Your task to perform on an android device: set the stopwatch Image 0: 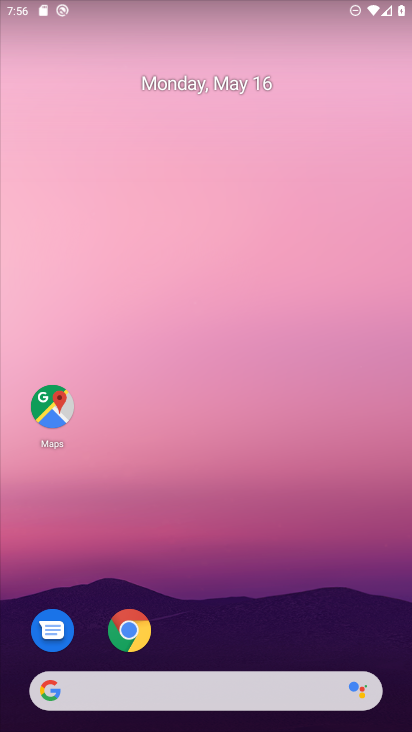
Step 0: drag from (291, 512) to (337, 34)
Your task to perform on an android device: set the stopwatch Image 1: 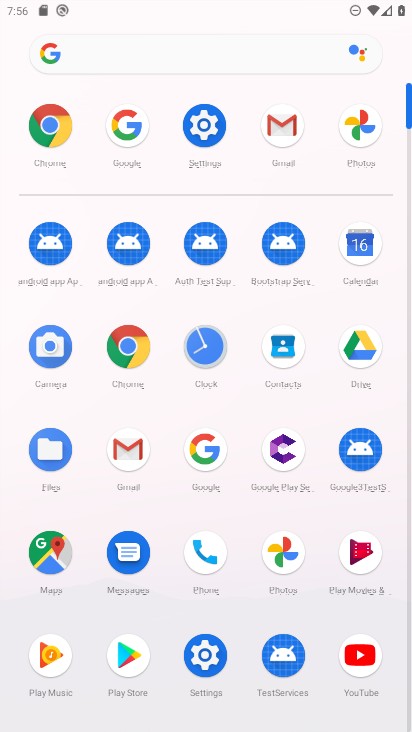
Step 1: click (218, 346)
Your task to perform on an android device: set the stopwatch Image 2: 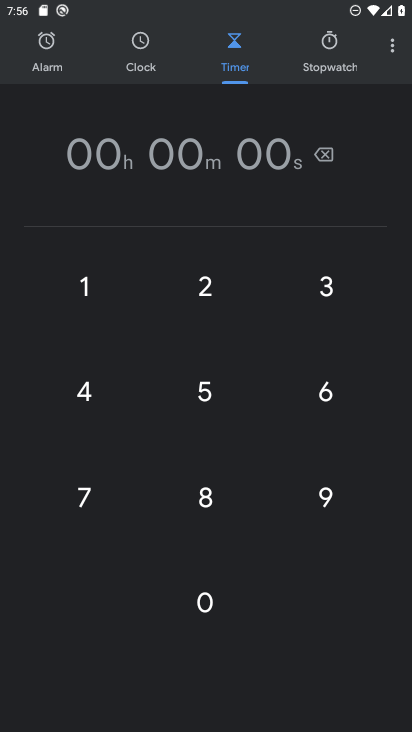
Step 2: drag from (88, 283) to (103, 325)
Your task to perform on an android device: set the stopwatch Image 3: 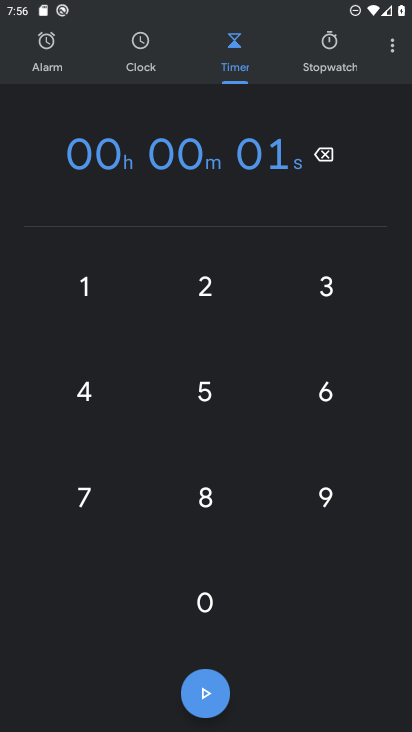
Step 3: click (206, 389)
Your task to perform on an android device: set the stopwatch Image 4: 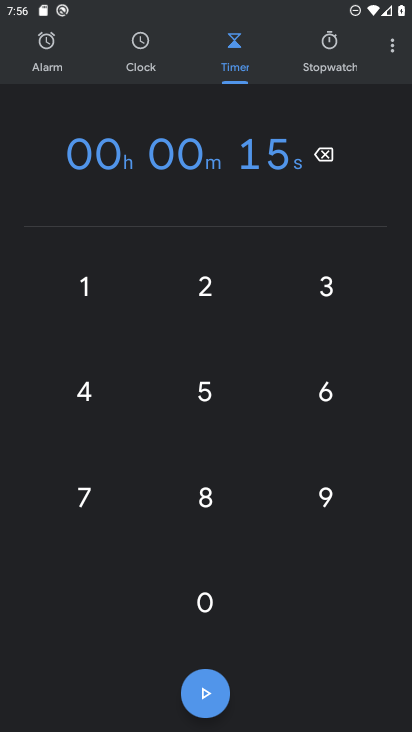
Step 4: click (218, 390)
Your task to perform on an android device: set the stopwatch Image 5: 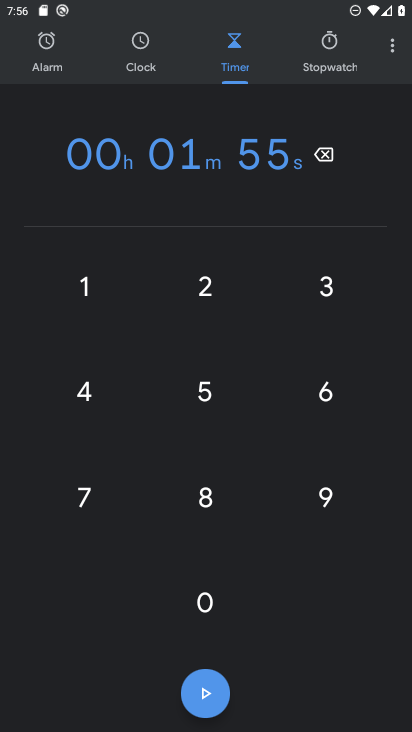
Step 5: click (196, 385)
Your task to perform on an android device: set the stopwatch Image 6: 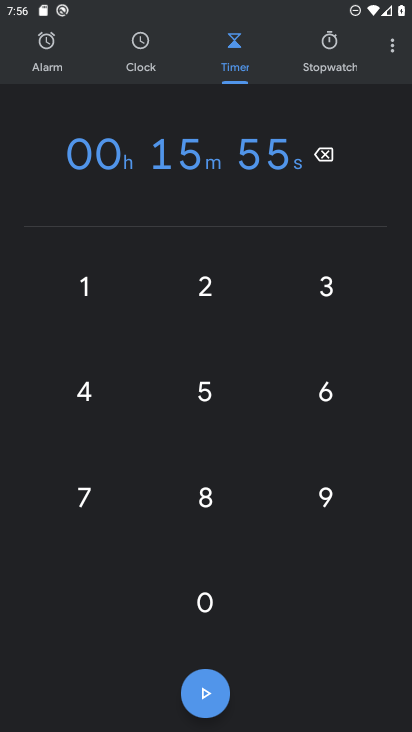
Step 6: click (195, 384)
Your task to perform on an android device: set the stopwatch Image 7: 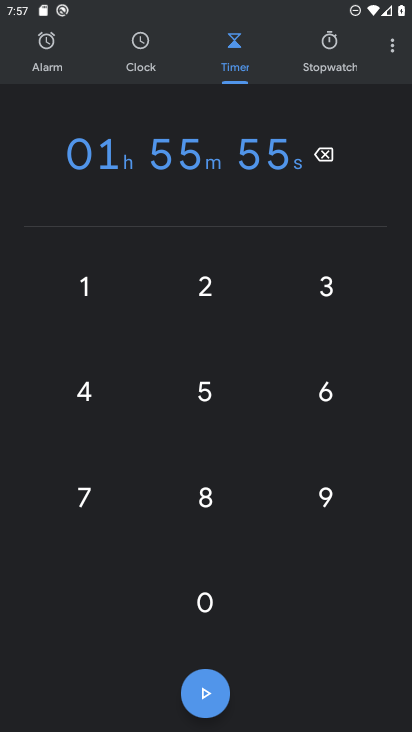
Step 7: click (195, 384)
Your task to perform on an android device: set the stopwatch Image 8: 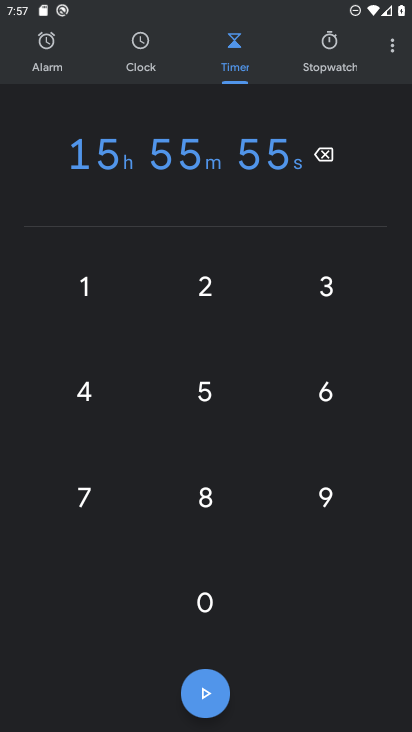
Step 8: click (158, 146)
Your task to perform on an android device: set the stopwatch Image 9: 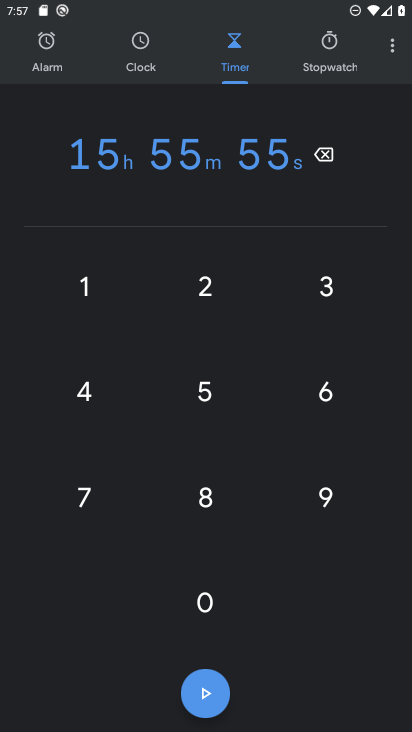
Step 9: click (222, 581)
Your task to perform on an android device: set the stopwatch Image 10: 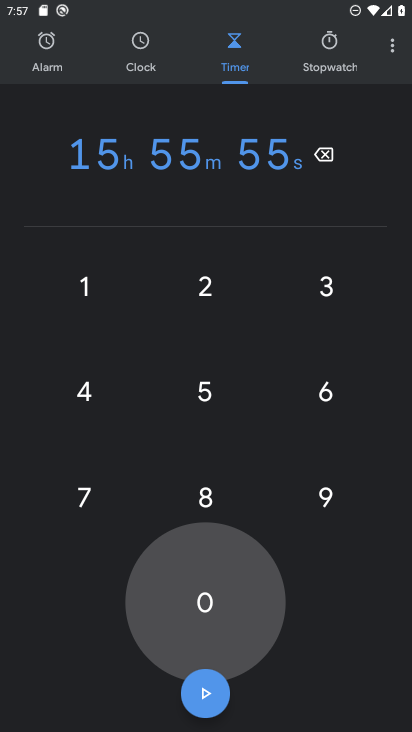
Step 10: click (187, 598)
Your task to perform on an android device: set the stopwatch Image 11: 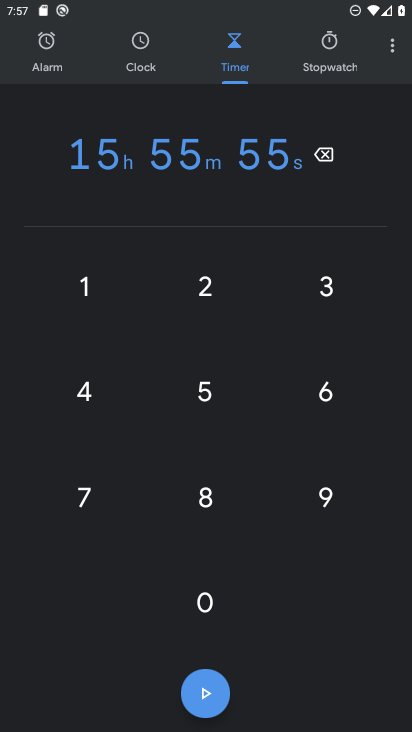
Step 11: click (193, 577)
Your task to perform on an android device: set the stopwatch Image 12: 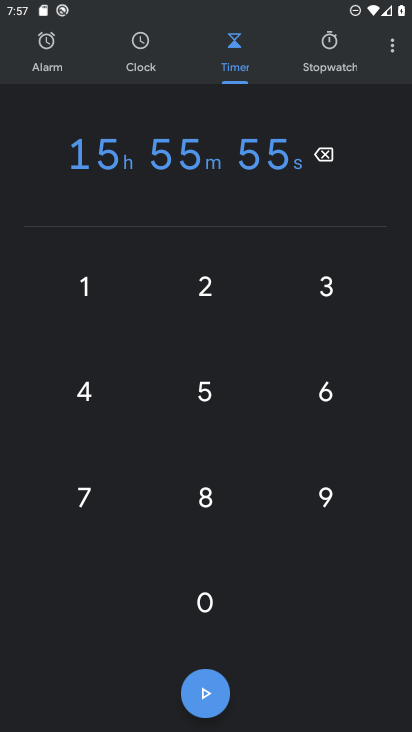
Step 12: click (201, 680)
Your task to perform on an android device: set the stopwatch Image 13: 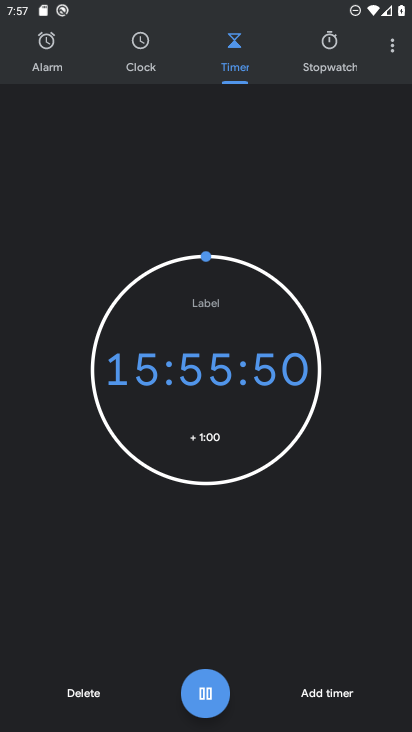
Step 13: click (93, 692)
Your task to perform on an android device: set the stopwatch Image 14: 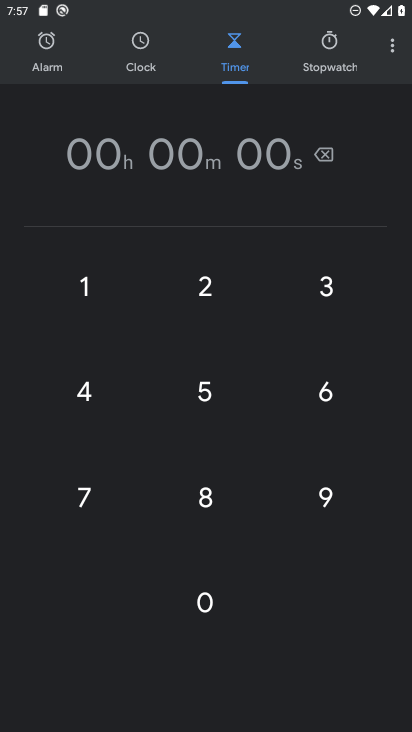
Step 14: click (199, 290)
Your task to perform on an android device: set the stopwatch Image 15: 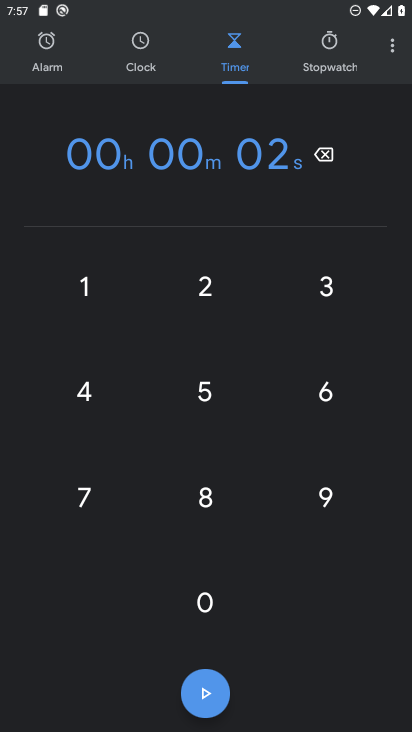
Step 15: click (201, 593)
Your task to perform on an android device: set the stopwatch Image 16: 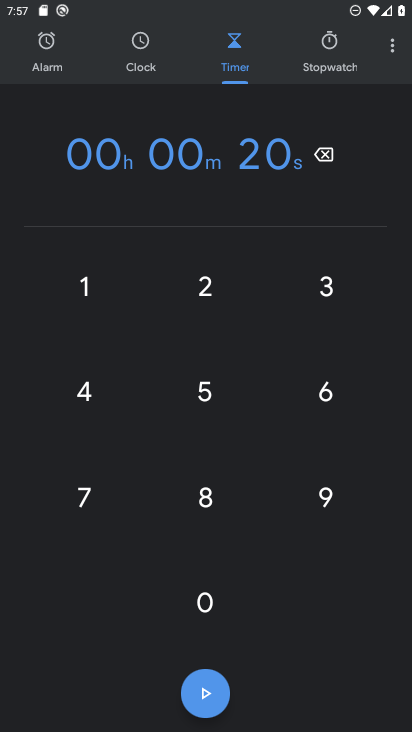
Step 16: click (84, 282)
Your task to perform on an android device: set the stopwatch Image 17: 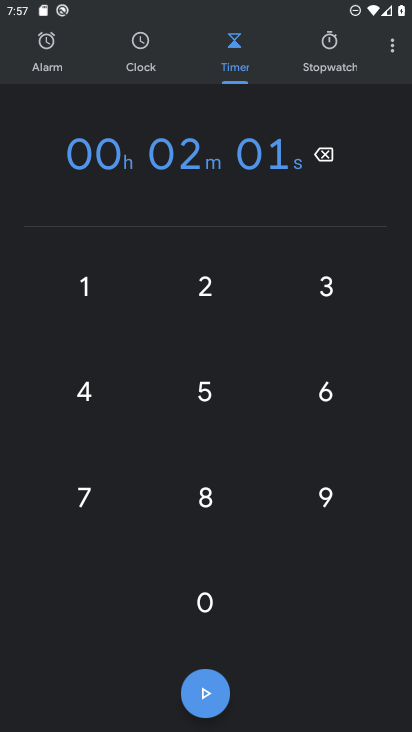
Step 17: click (214, 376)
Your task to perform on an android device: set the stopwatch Image 18: 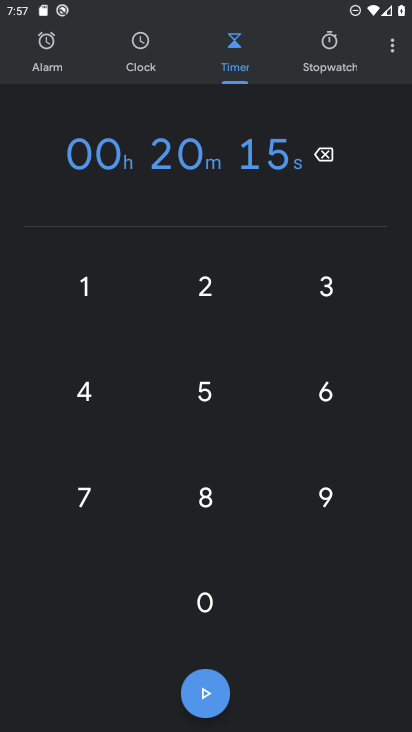
Step 18: click (330, 147)
Your task to perform on an android device: set the stopwatch Image 19: 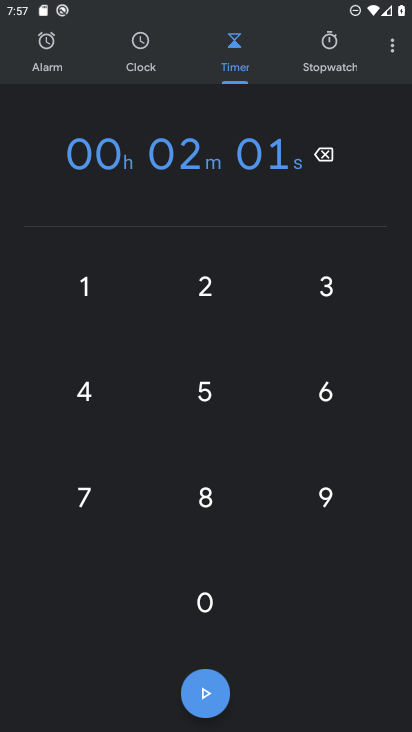
Step 19: click (205, 681)
Your task to perform on an android device: set the stopwatch Image 20: 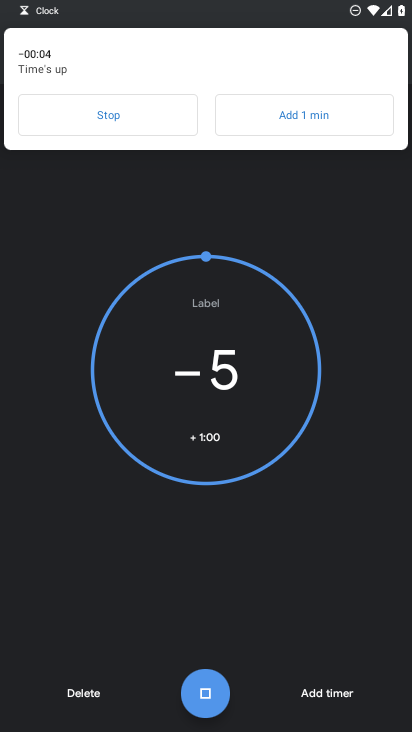
Step 20: task complete